Your task to perform on an android device: Go to eBay Image 0: 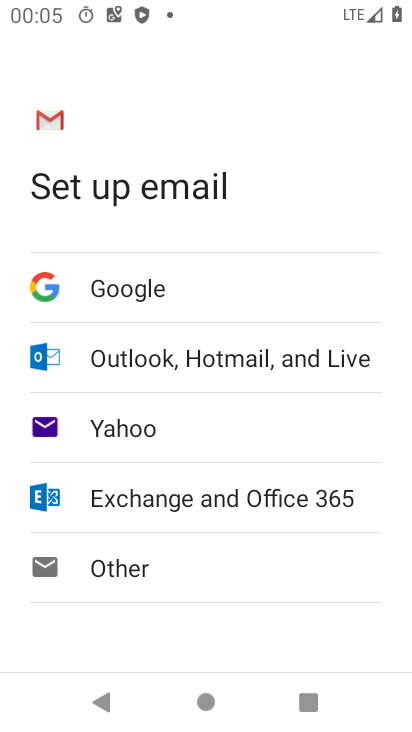
Step 0: press home button
Your task to perform on an android device: Go to eBay Image 1: 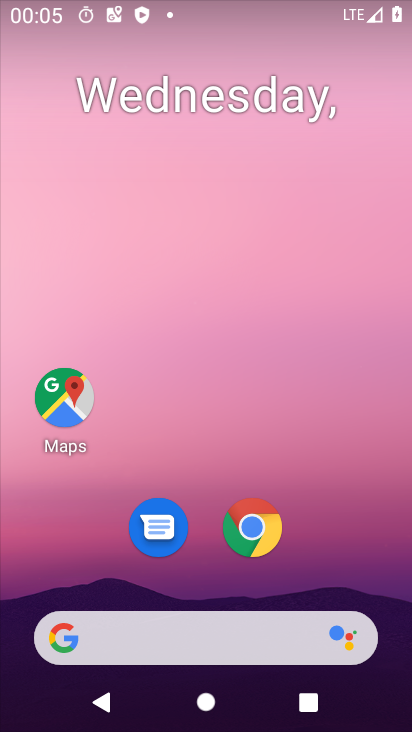
Step 1: drag from (190, 581) to (227, 134)
Your task to perform on an android device: Go to eBay Image 2: 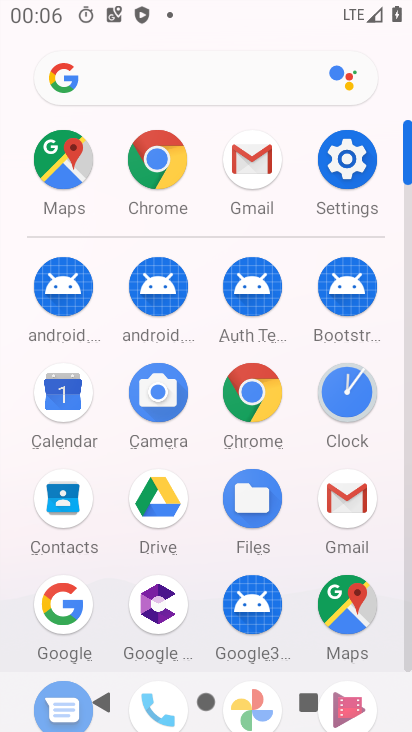
Step 2: click (153, 63)
Your task to perform on an android device: Go to eBay Image 3: 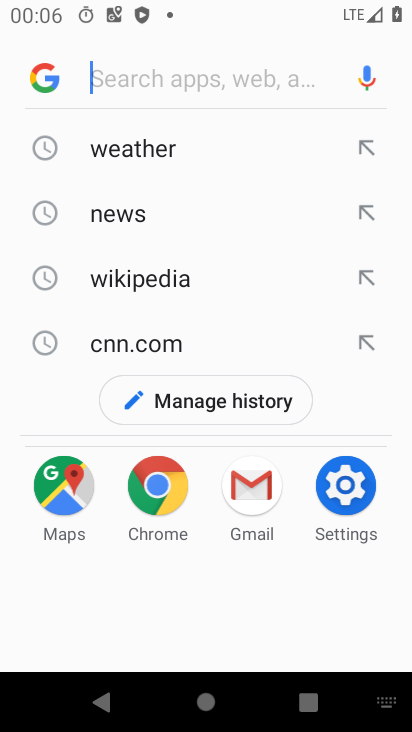
Step 3: type "eBay"
Your task to perform on an android device: Go to eBay Image 4: 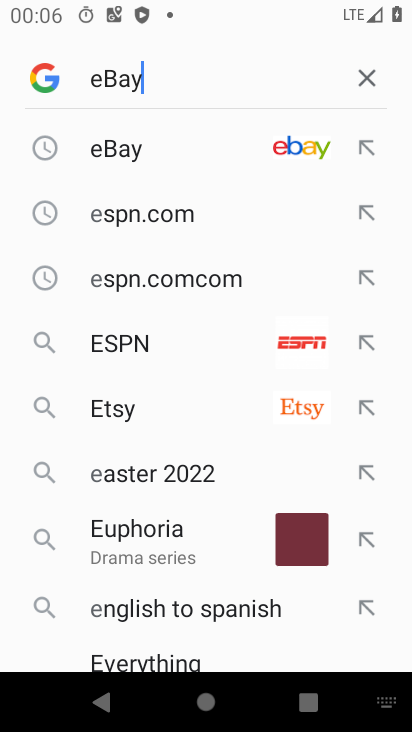
Step 4: type ""
Your task to perform on an android device: Go to eBay Image 5: 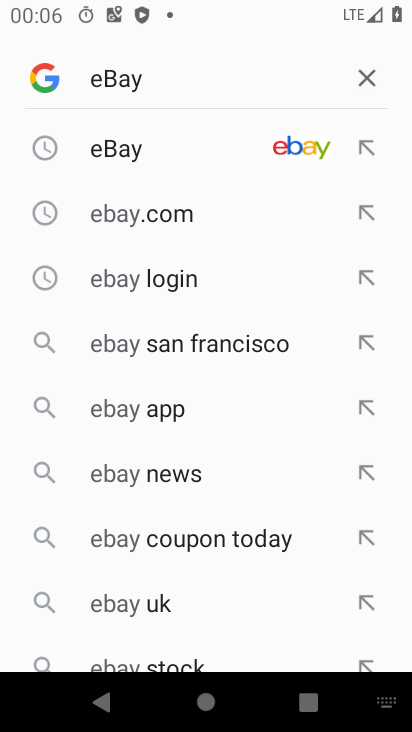
Step 5: click (168, 146)
Your task to perform on an android device: Go to eBay Image 6: 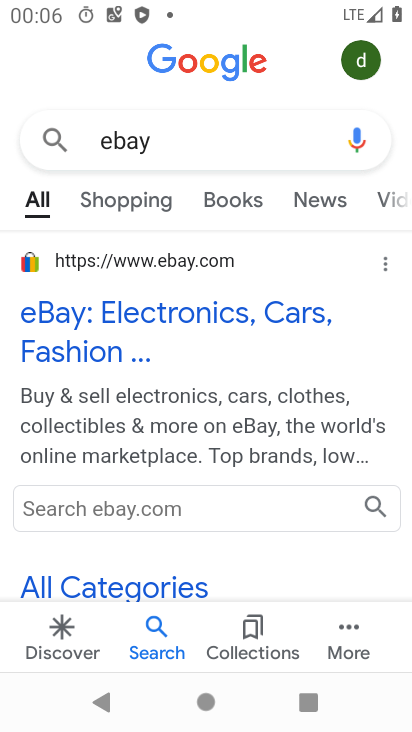
Step 6: click (83, 322)
Your task to perform on an android device: Go to eBay Image 7: 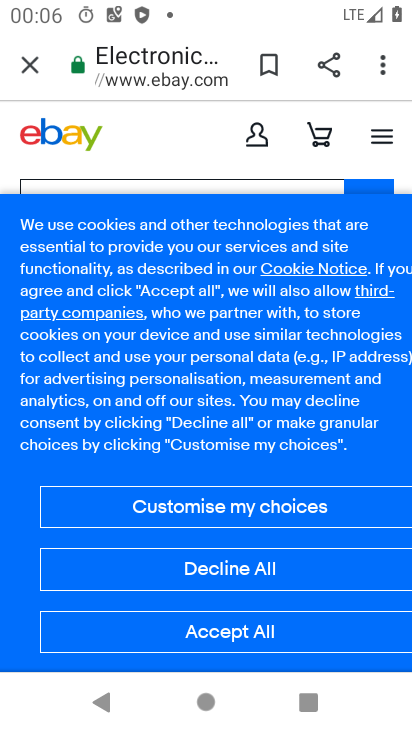
Step 7: task complete